Your task to perform on an android device: stop showing notifications on the lock screen Image 0: 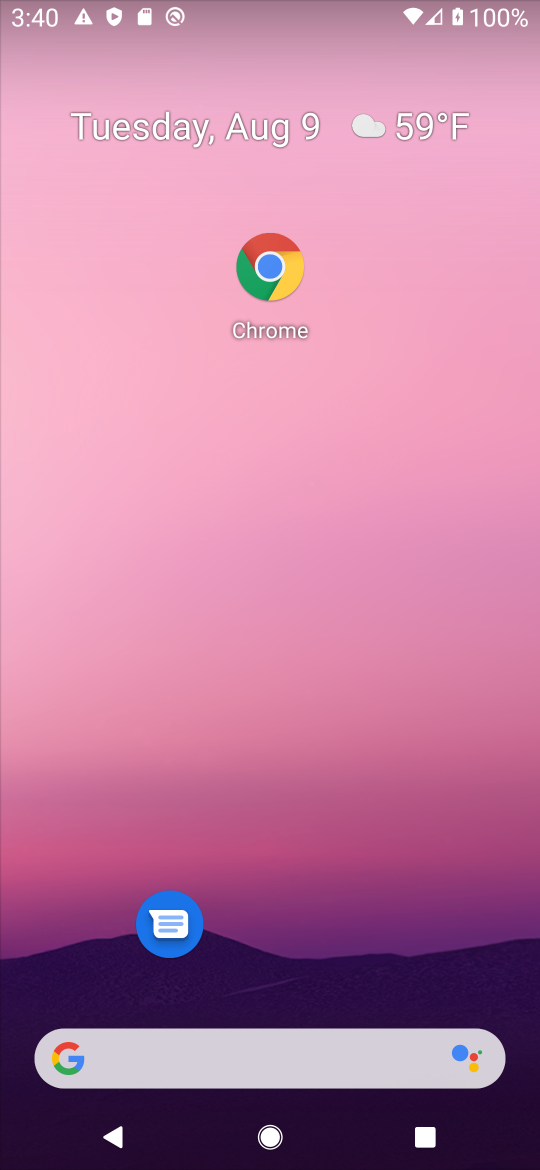
Step 0: press back button
Your task to perform on an android device: stop showing notifications on the lock screen Image 1: 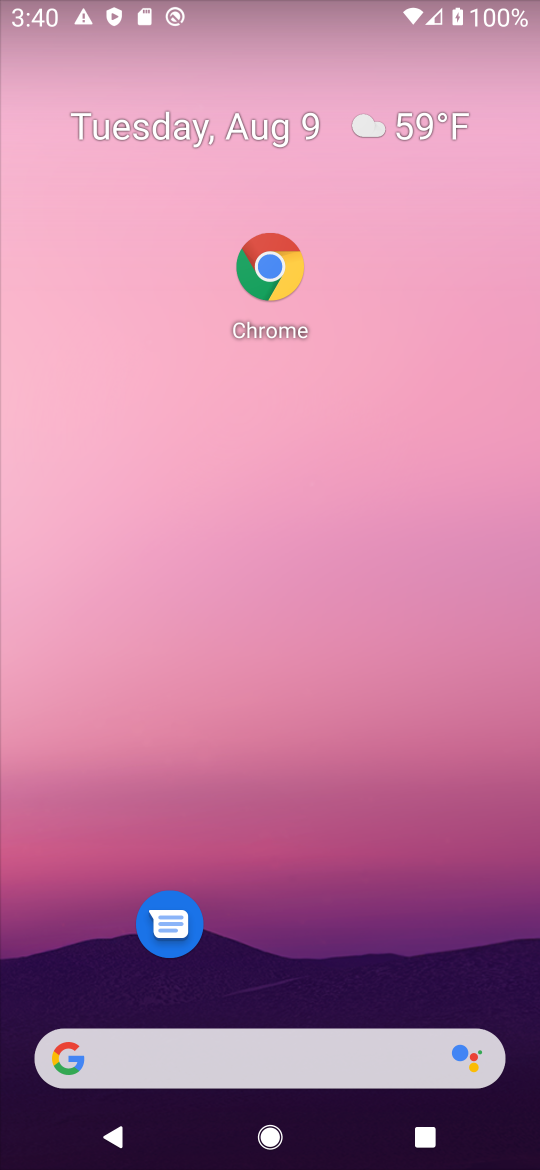
Step 1: drag from (344, 575) to (344, 279)
Your task to perform on an android device: stop showing notifications on the lock screen Image 2: 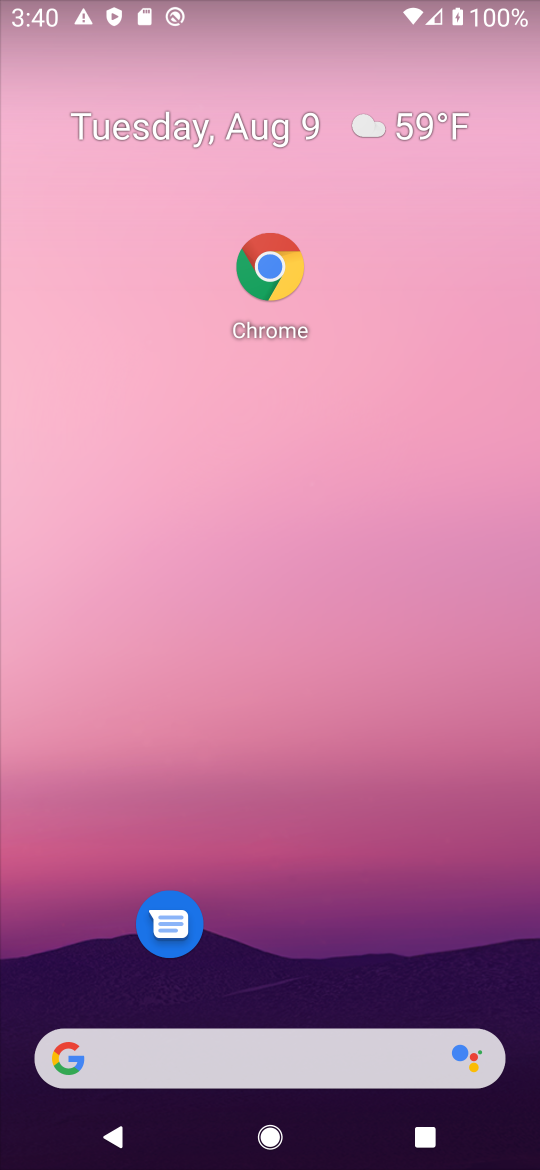
Step 2: drag from (313, 1064) to (339, 256)
Your task to perform on an android device: stop showing notifications on the lock screen Image 3: 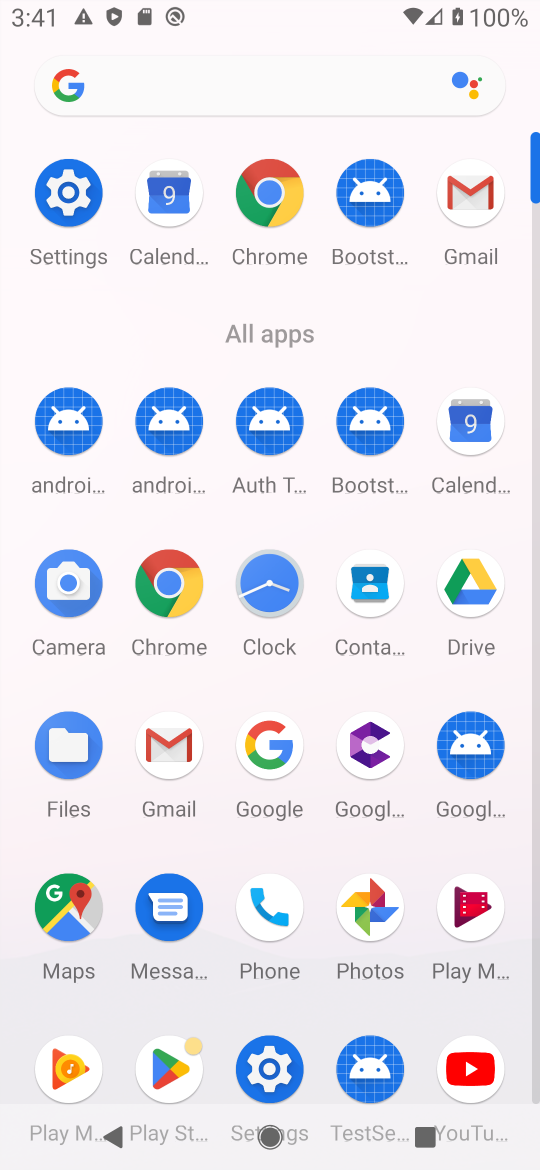
Step 3: click (81, 191)
Your task to perform on an android device: stop showing notifications on the lock screen Image 4: 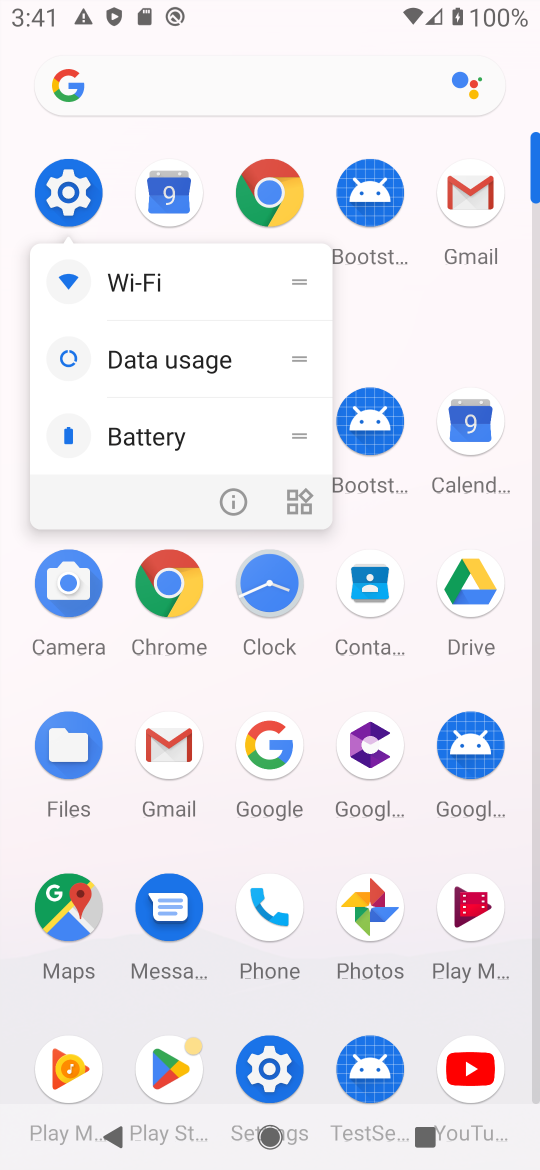
Step 4: click (66, 210)
Your task to perform on an android device: stop showing notifications on the lock screen Image 5: 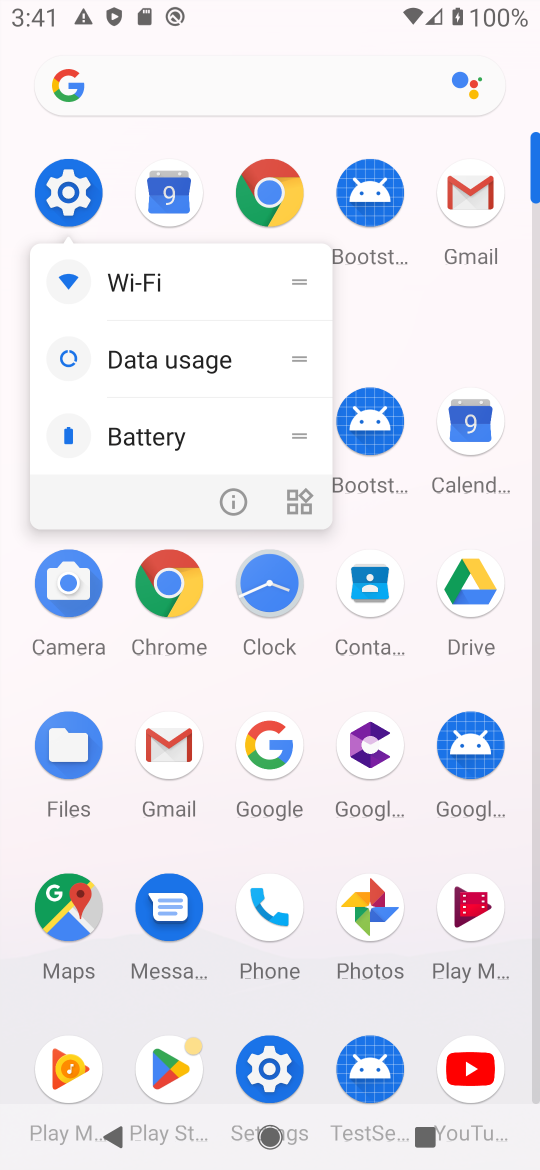
Step 5: click (79, 202)
Your task to perform on an android device: stop showing notifications on the lock screen Image 6: 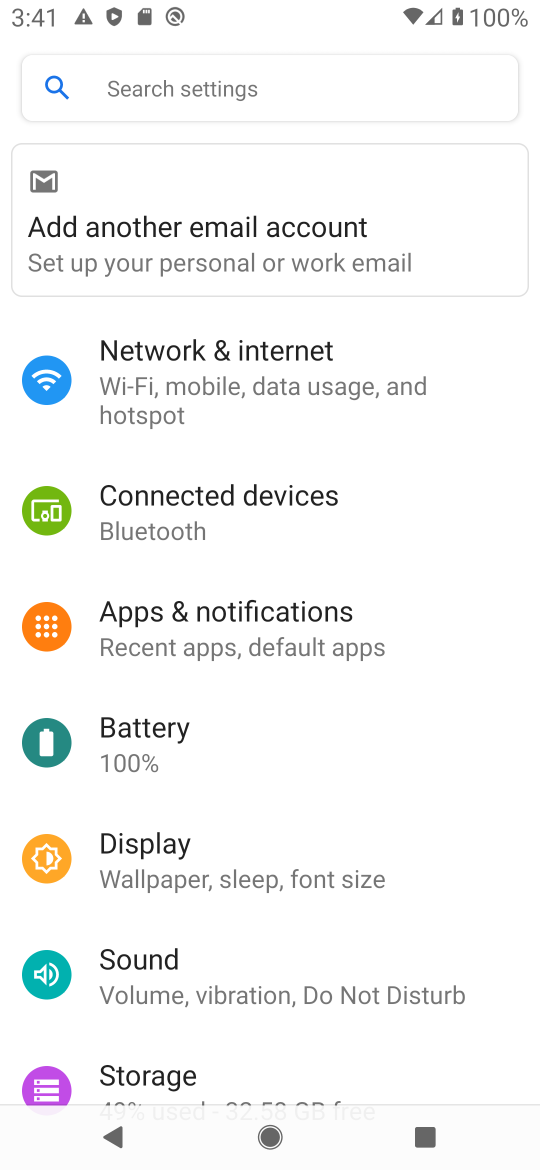
Step 6: click (151, 635)
Your task to perform on an android device: stop showing notifications on the lock screen Image 7: 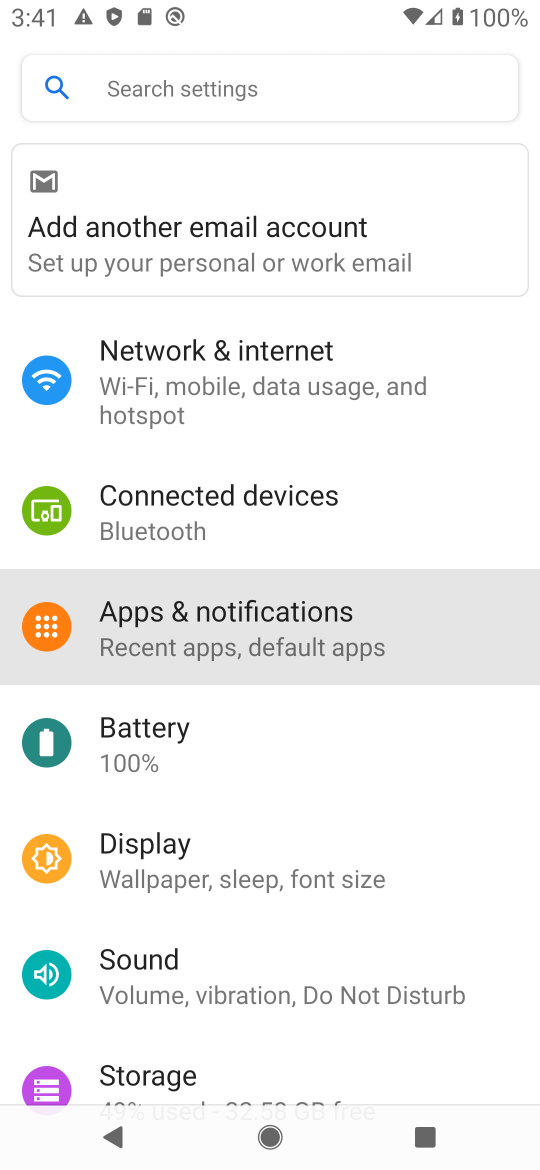
Step 7: click (151, 632)
Your task to perform on an android device: stop showing notifications on the lock screen Image 8: 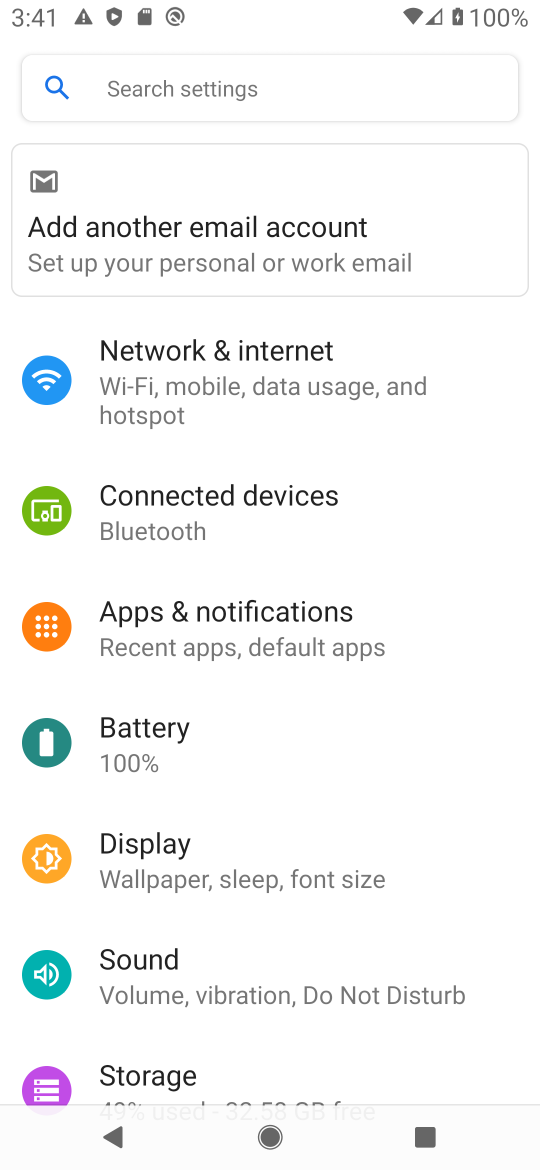
Step 8: click (177, 634)
Your task to perform on an android device: stop showing notifications on the lock screen Image 9: 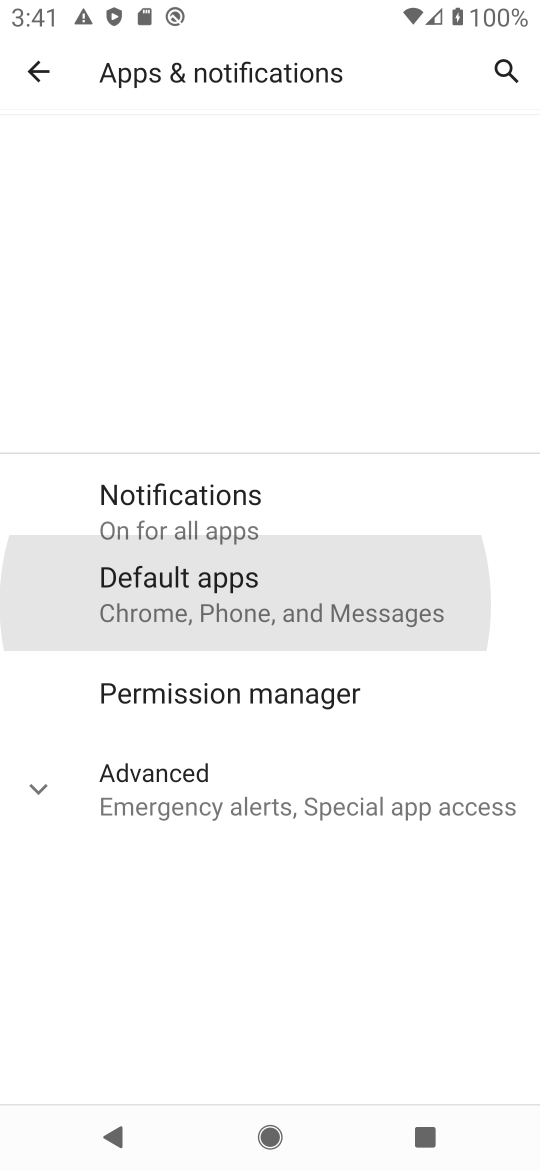
Step 9: click (273, 635)
Your task to perform on an android device: stop showing notifications on the lock screen Image 10: 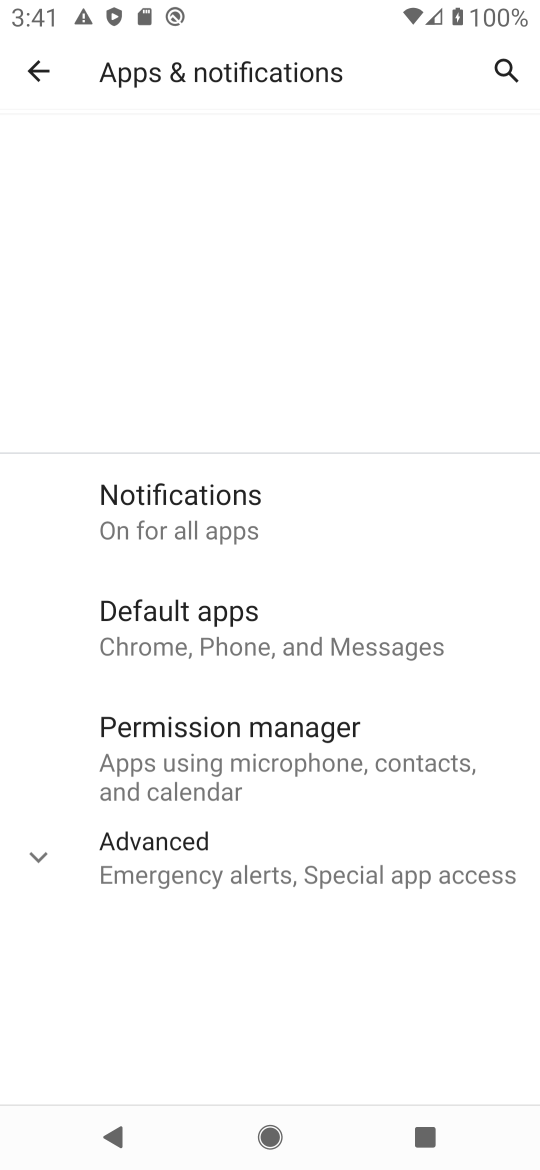
Step 10: click (175, 514)
Your task to perform on an android device: stop showing notifications on the lock screen Image 11: 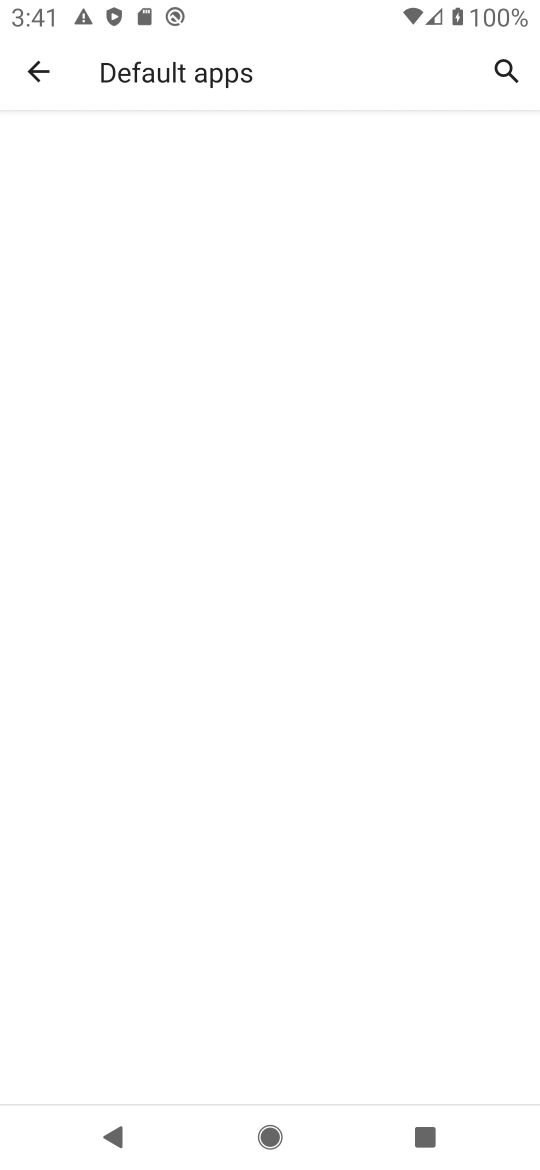
Step 11: click (175, 514)
Your task to perform on an android device: stop showing notifications on the lock screen Image 12: 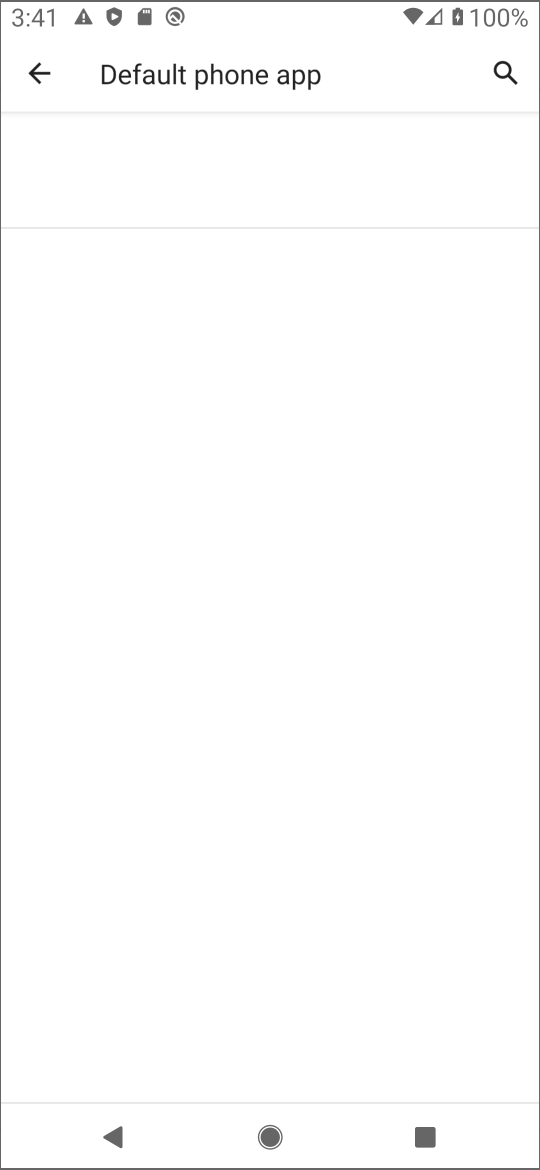
Step 12: click (180, 516)
Your task to perform on an android device: stop showing notifications on the lock screen Image 13: 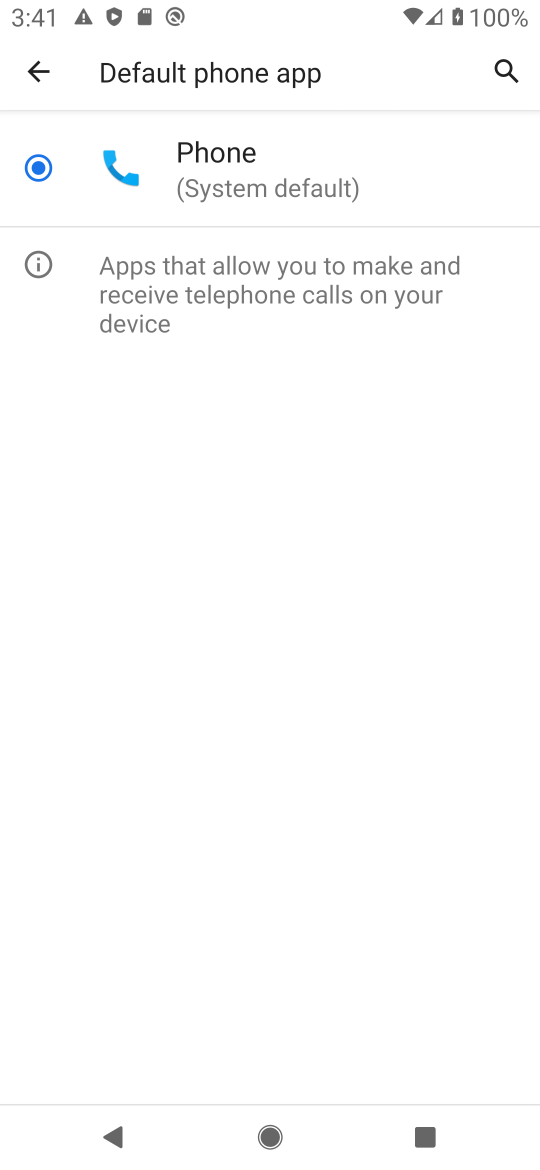
Step 13: click (43, 82)
Your task to perform on an android device: stop showing notifications on the lock screen Image 14: 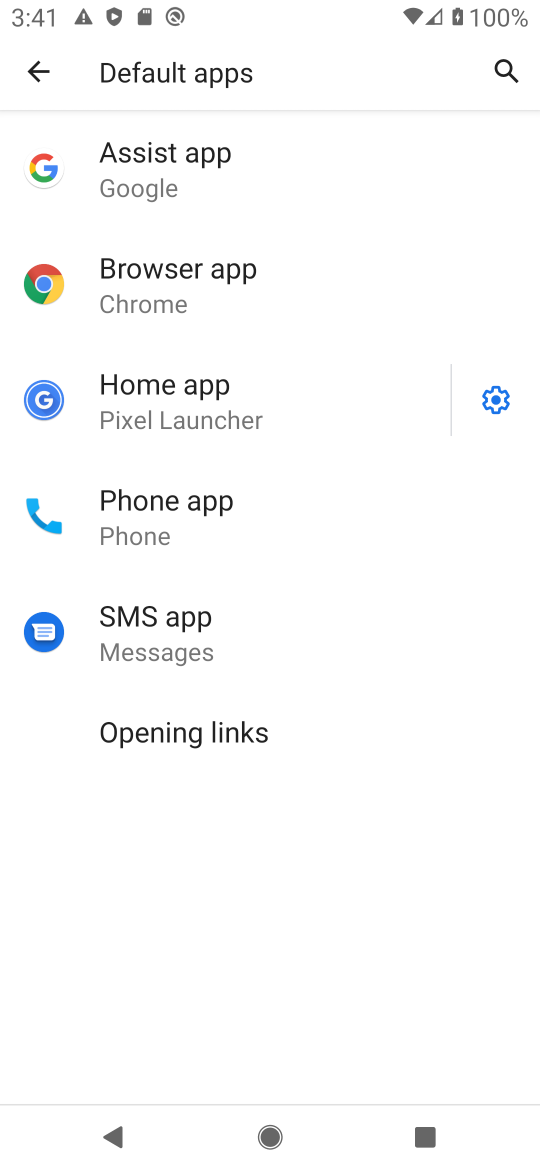
Step 14: click (40, 82)
Your task to perform on an android device: stop showing notifications on the lock screen Image 15: 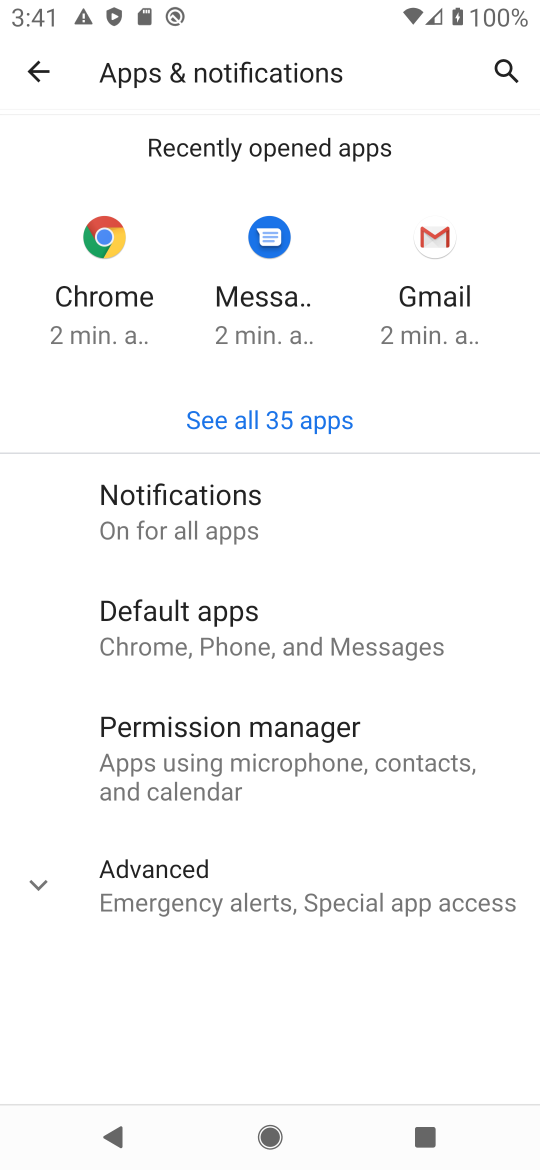
Step 15: click (173, 505)
Your task to perform on an android device: stop showing notifications on the lock screen Image 16: 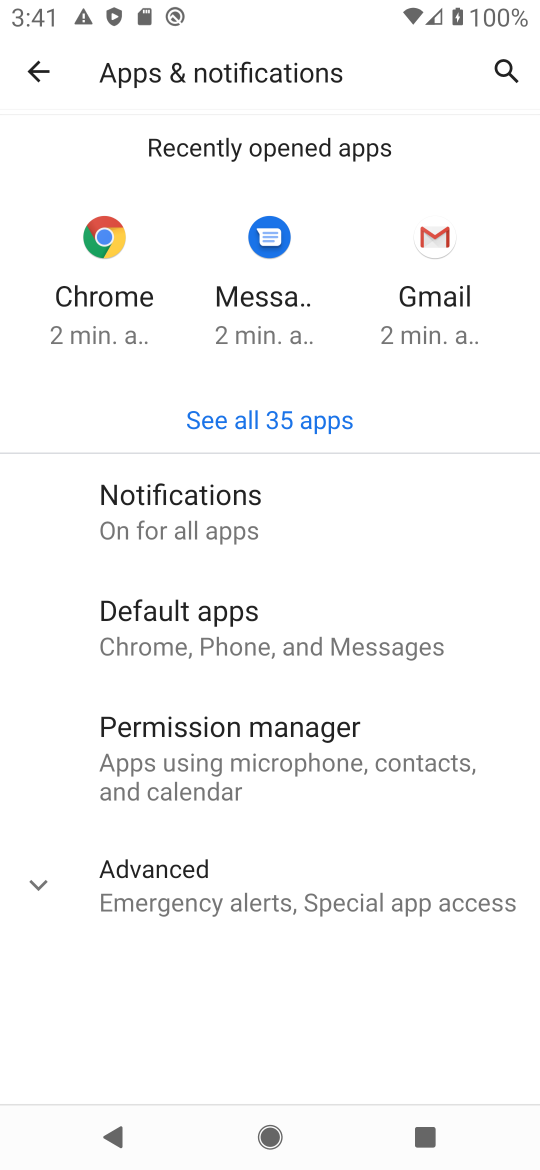
Step 16: click (175, 505)
Your task to perform on an android device: stop showing notifications on the lock screen Image 17: 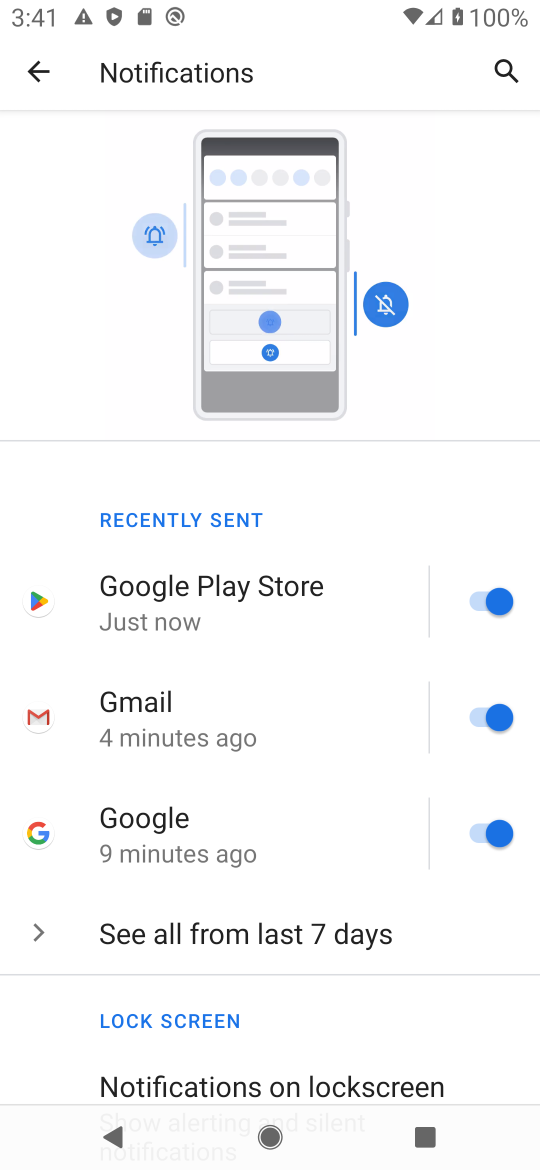
Step 17: drag from (225, 1015) to (240, 186)
Your task to perform on an android device: stop showing notifications on the lock screen Image 18: 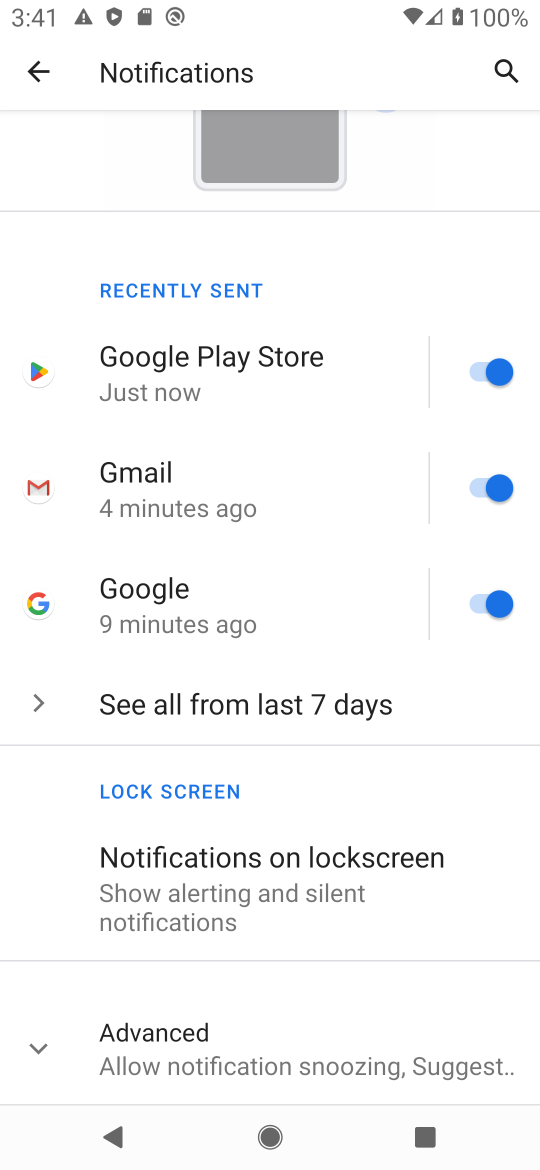
Step 18: click (228, 889)
Your task to perform on an android device: stop showing notifications on the lock screen Image 19: 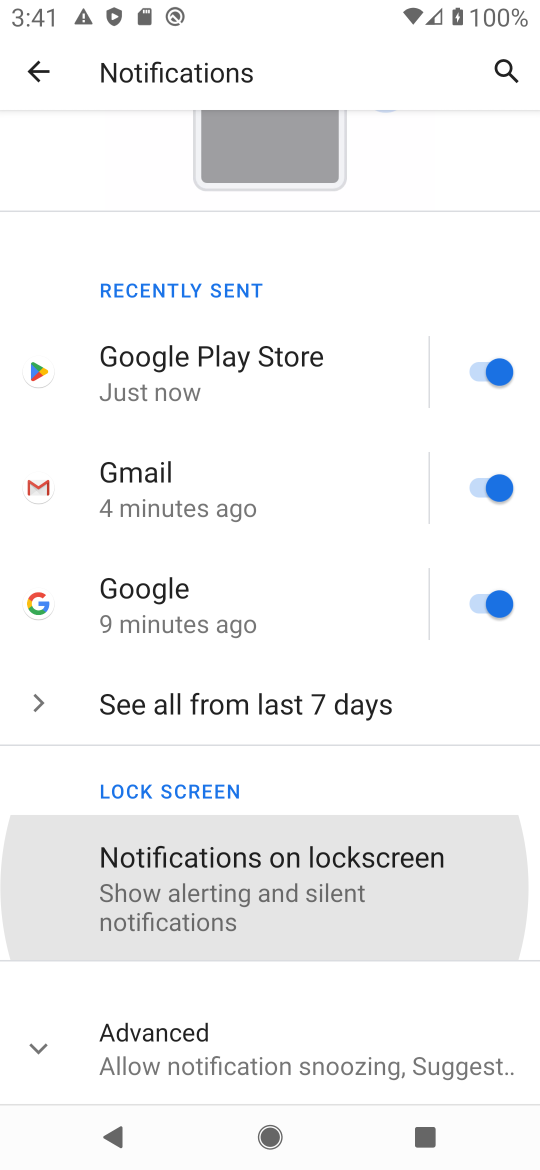
Step 19: click (225, 887)
Your task to perform on an android device: stop showing notifications on the lock screen Image 20: 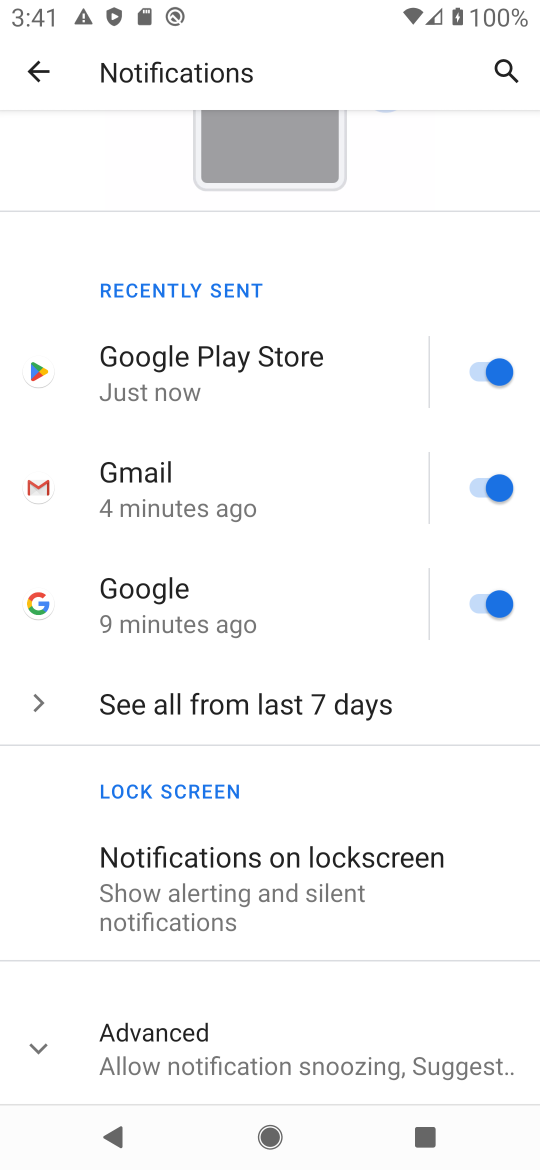
Step 20: click (225, 887)
Your task to perform on an android device: stop showing notifications on the lock screen Image 21: 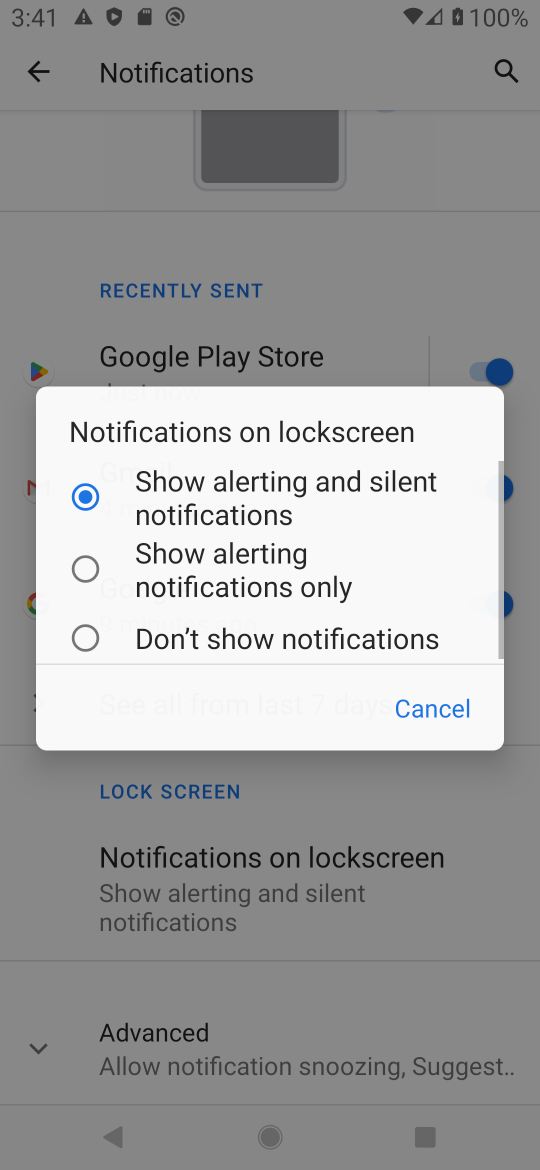
Step 21: click (223, 886)
Your task to perform on an android device: stop showing notifications on the lock screen Image 22: 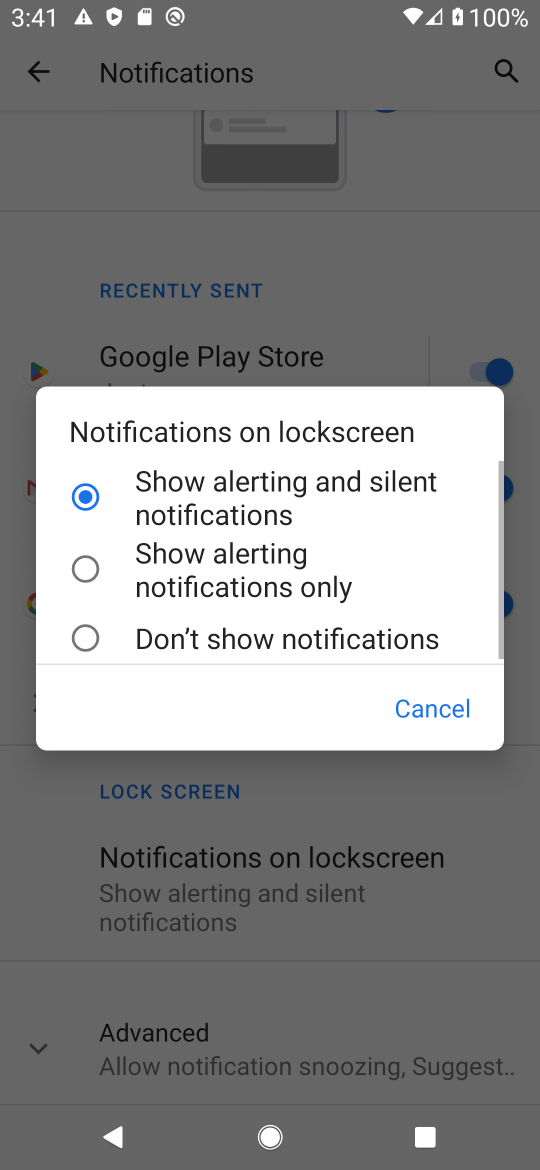
Step 22: click (80, 583)
Your task to perform on an android device: stop showing notifications on the lock screen Image 23: 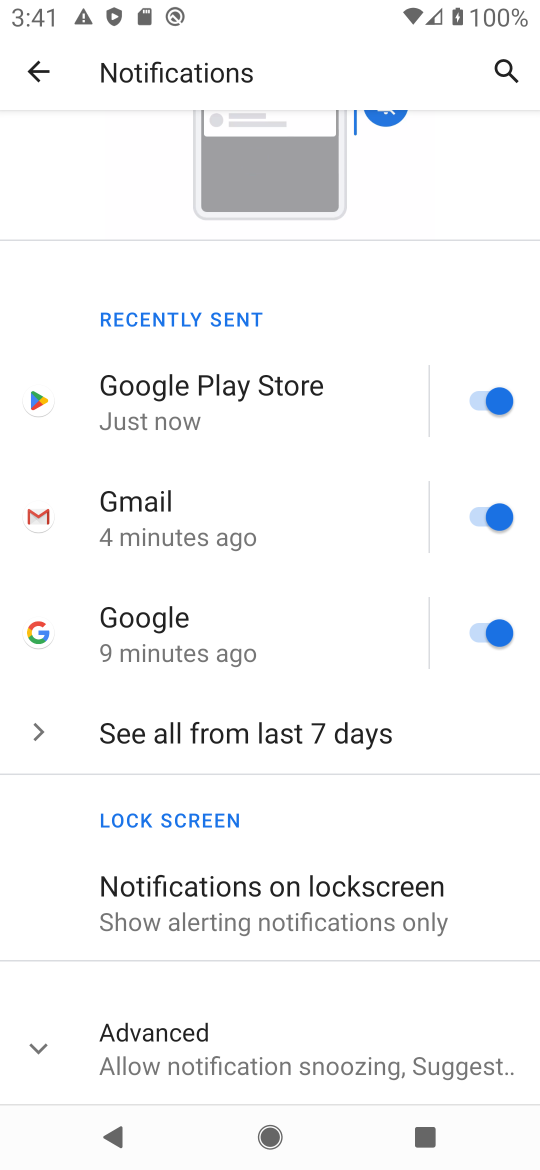
Step 23: task complete